Your task to perform on an android device: Search for Italian restaurants on Maps Image 0: 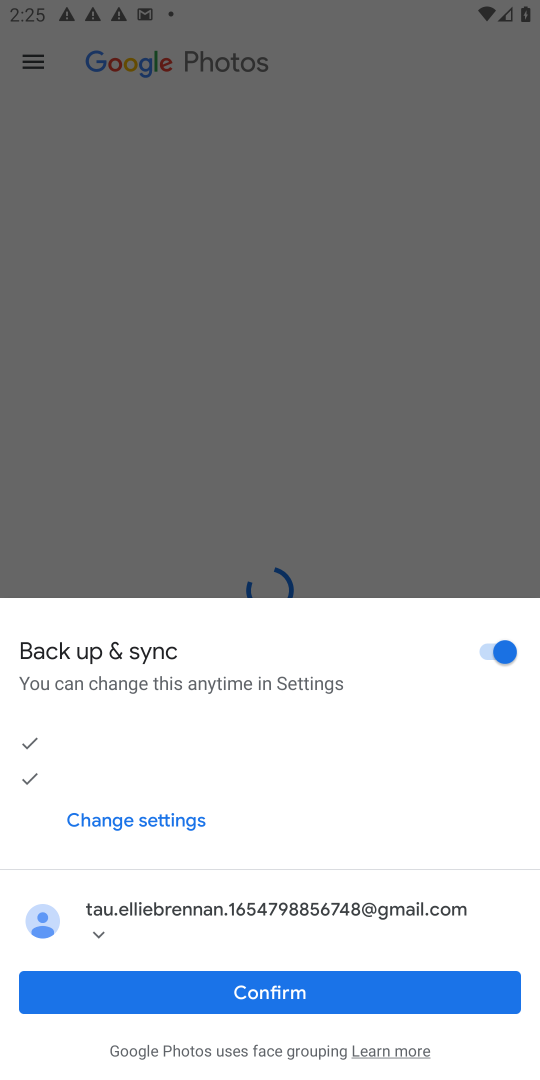
Step 0: press back button
Your task to perform on an android device: Search for Italian restaurants on Maps Image 1: 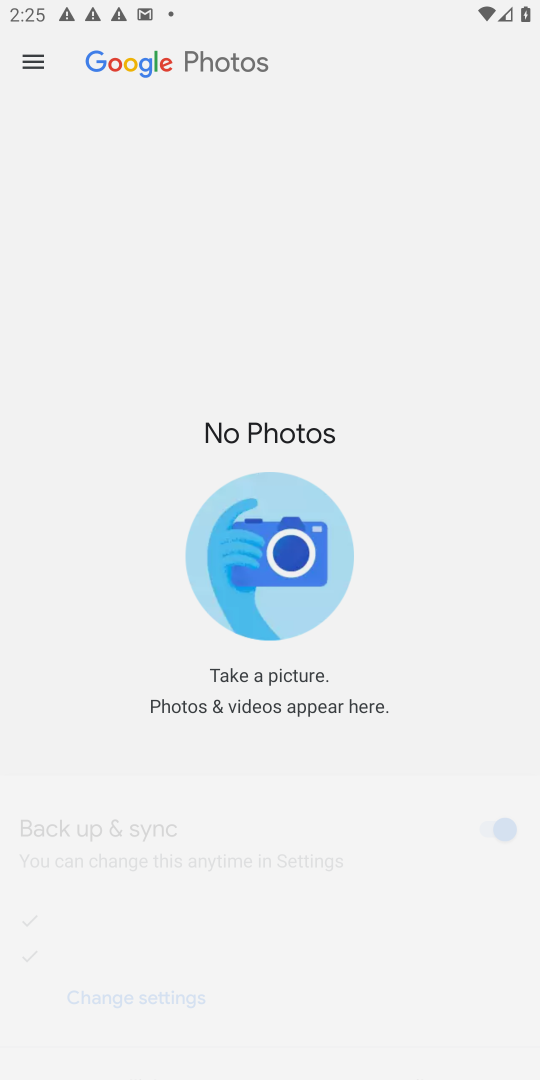
Step 1: press home button
Your task to perform on an android device: Search for Italian restaurants on Maps Image 2: 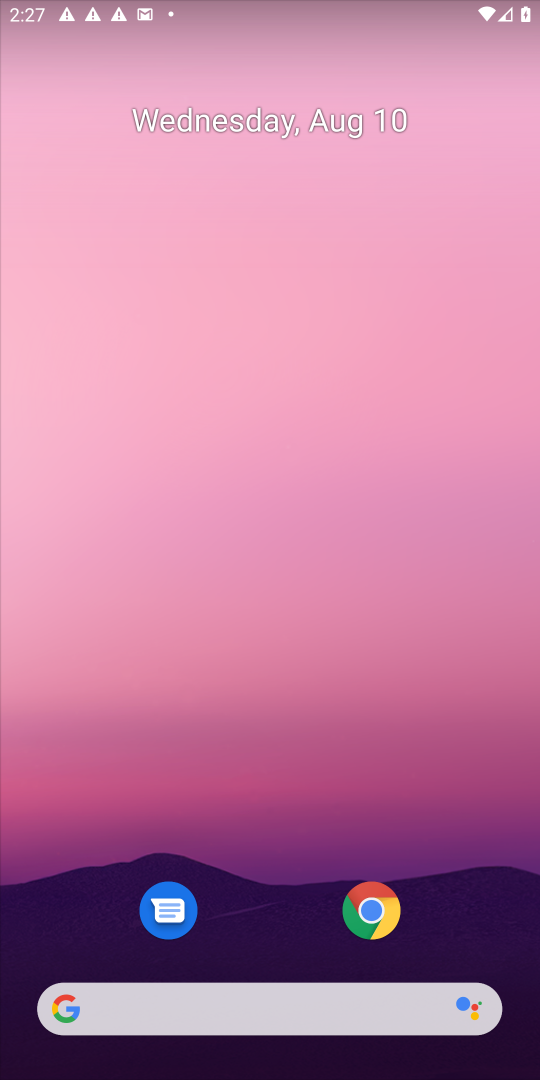
Step 2: drag from (317, 965) to (260, 61)
Your task to perform on an android device: Search for Italian restaurants on Maps Image 3: 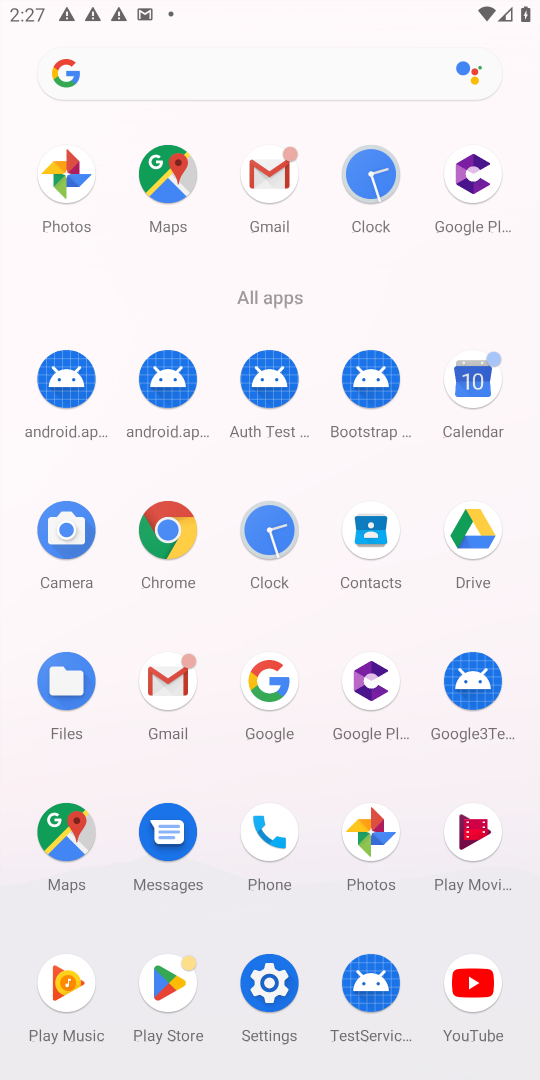
Step 3: click (165, 184)
Your task to perform on an android device: Search for Italian restaurants on Maps Image 4: 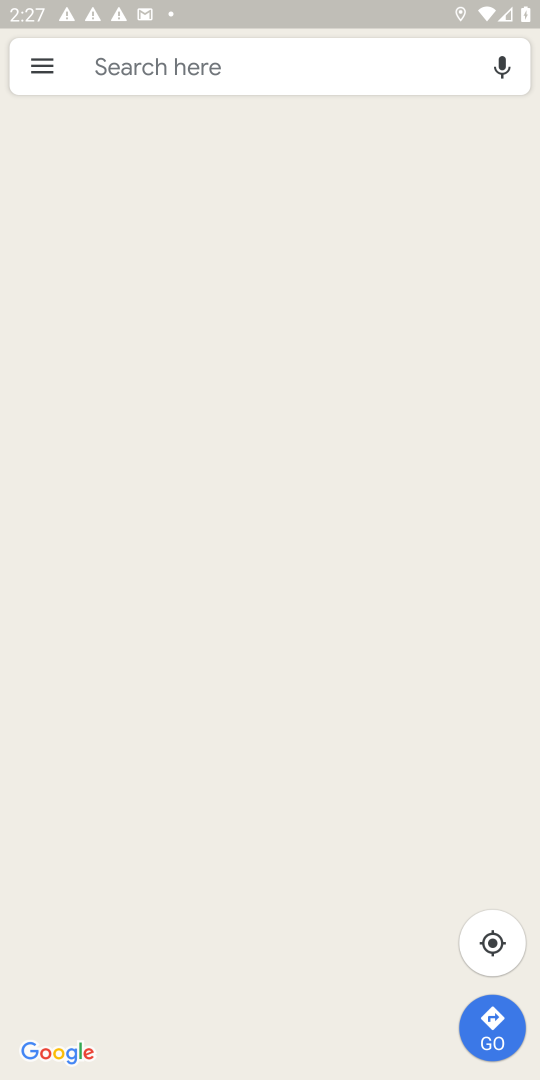
Step 4: click (191, 75)
Your task to perform on an android device: Search for Italian restaurants on Maps Image 5: 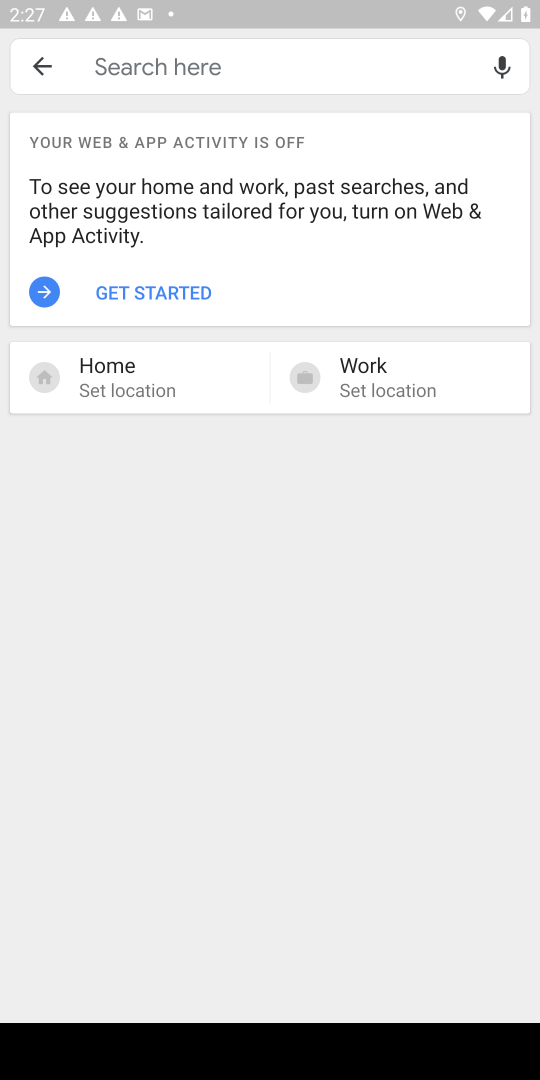
Step 5: type "italian"
Your task to perform on an android device: Search for Italian restaurants on Maps Image 6: 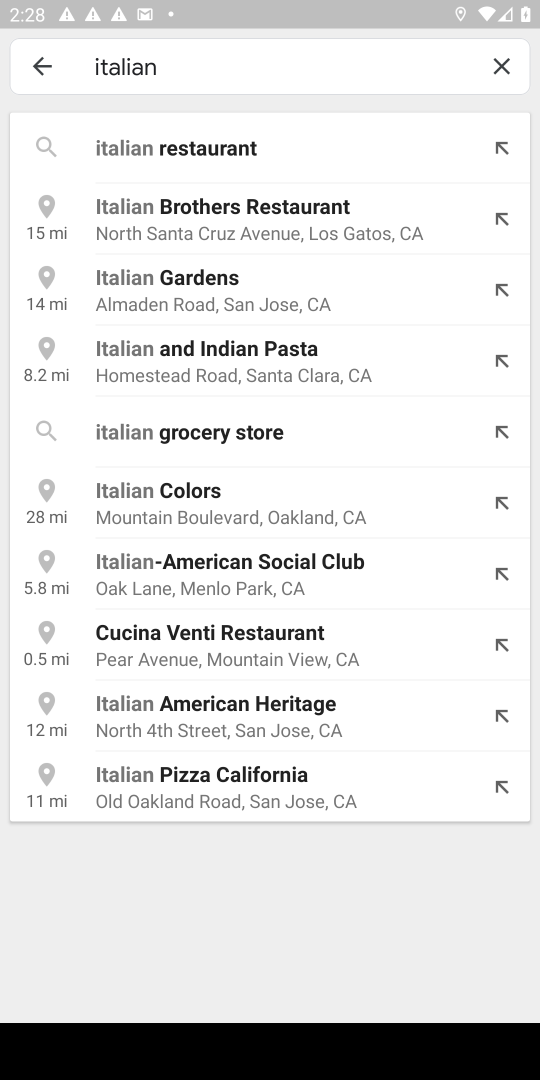
Step 6: click (185, 136)
Your task to perform on an android device: Search for Italian restaurants on Maps Image 7: 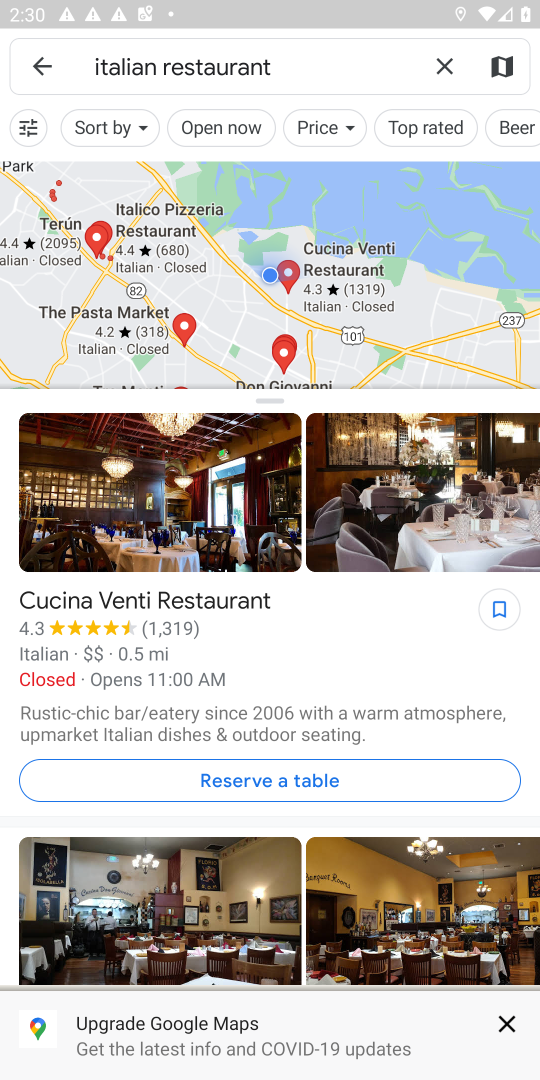
Step 7: task complete